Your task to perform on an android device: Search for flights from Seoul to Mexico city Image 0: 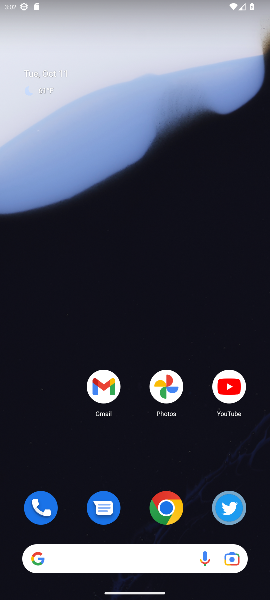
Step 0: click (172, 507)
Your task to perform on an android device: Search for flights from Seoul to Mexico city Image 1: 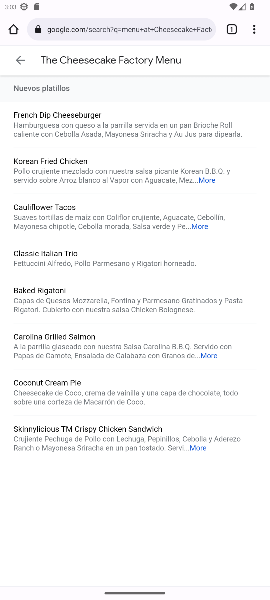
Step 1: click (144, 29)
Your task to perform on an android device: Search for flights from Seoul to Mexico city Image 2: 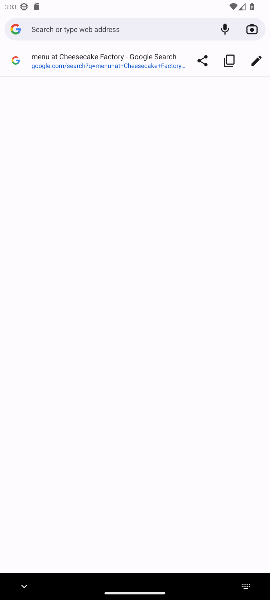
Step 2: type "flights from Seoul to Mexico city"
Your task to perform on an android device: Search for flights from Seoul to Mexico city Image 3: 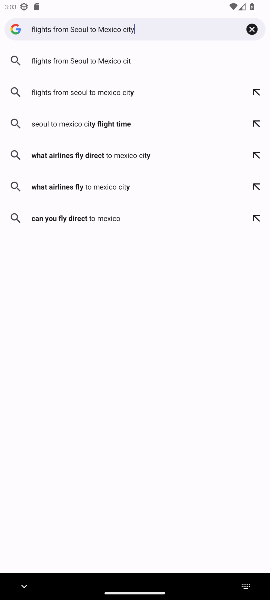
Step 3: press enter
Your task to perform on an android device: Search for flights from Seoul to Mexico city Image 4: 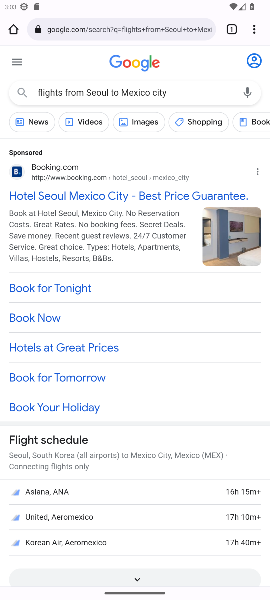
Step 4: drag from (200, 125) to (37, 120)
Your task to perform on an android device: Search for flights from Seoul to Mexico city Image 5: 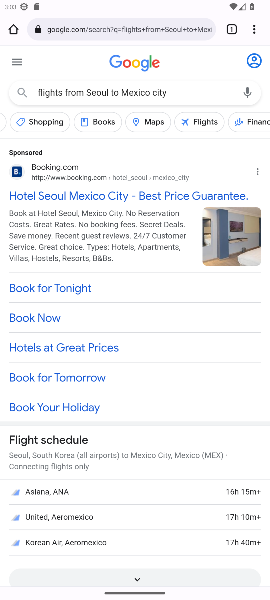
Step 5: click (202, 120)
Your task to perform on an android device: Search for flights from Seoul to Mexico city Image 6: 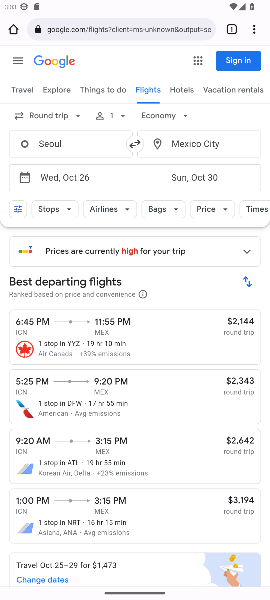
Step 6: task complete